Your task to perform on an android device: empty trash in google photos Image 0: 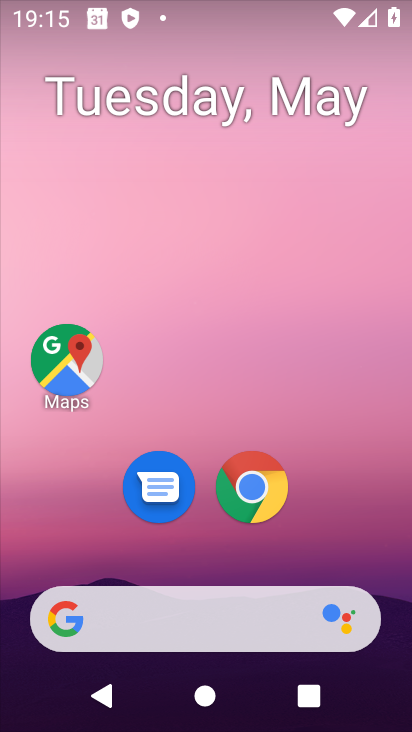
Step 0: drag from (334, 534) to (264, 4)
Your task to perform on an android device: empty trash in google photos Image 1: 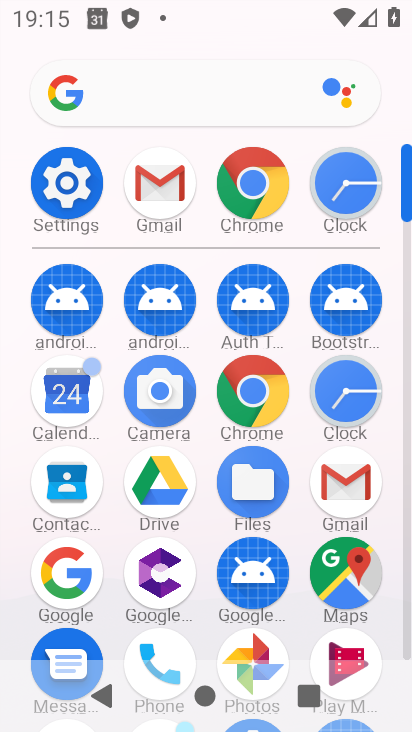
Step 1: click (255, 654)
Your task to perform on an android device: empty trash in google photos Image 2: 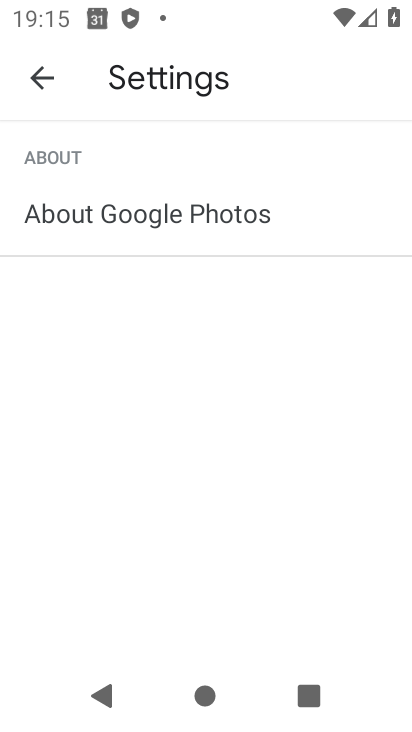
Step 2: click (36, 77)
Your task to perform on an android device: empty trash in google photos Image 3: 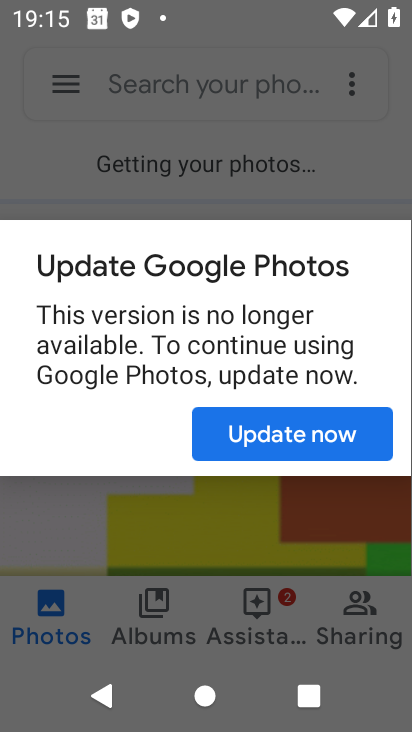
Step 3: click (264, 435)
Your task to perform on an android device: empty trash in google photos Image 4: 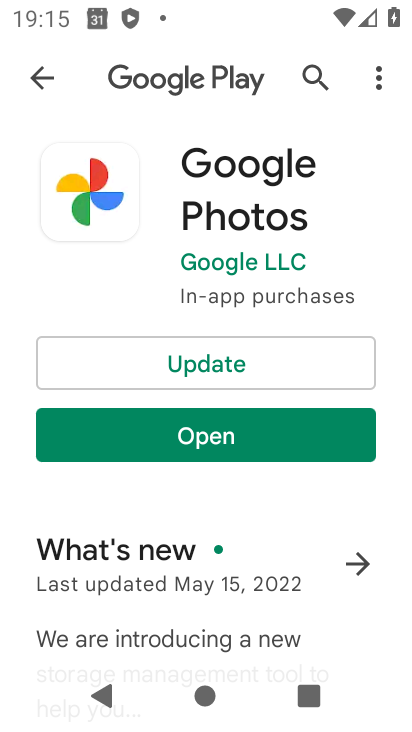
Step 4: click (201, 357)
Your task to perform on an android device: empty trash in google photos Image 5: 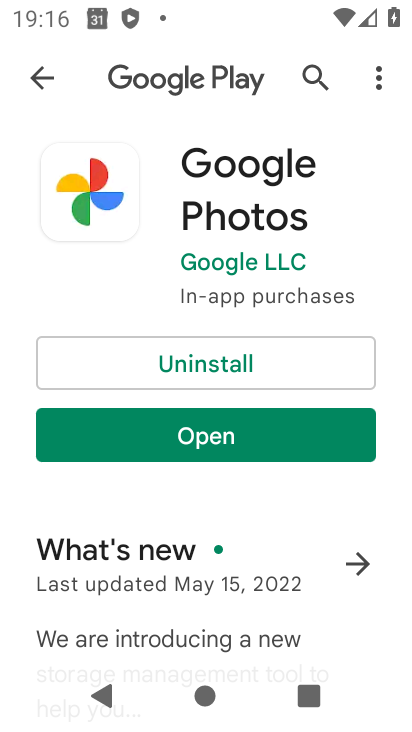
Step 5: click (202, 442)
Your task to perform on an android device: empty trash in google photos Image 6: 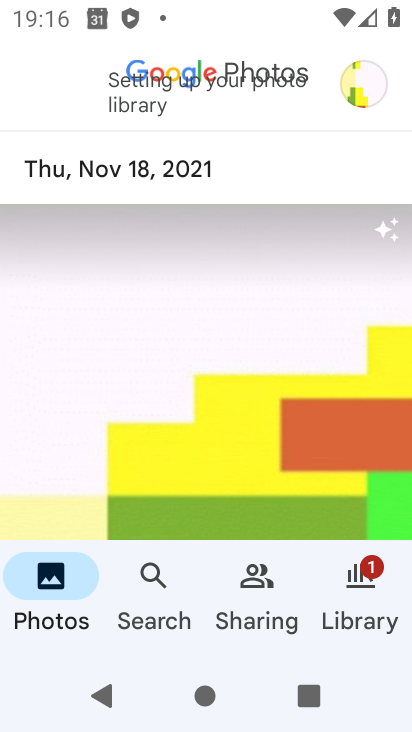
Step 6: click (352, 565)
Your task to perform on an android device: empty trash in google photos Image 7: 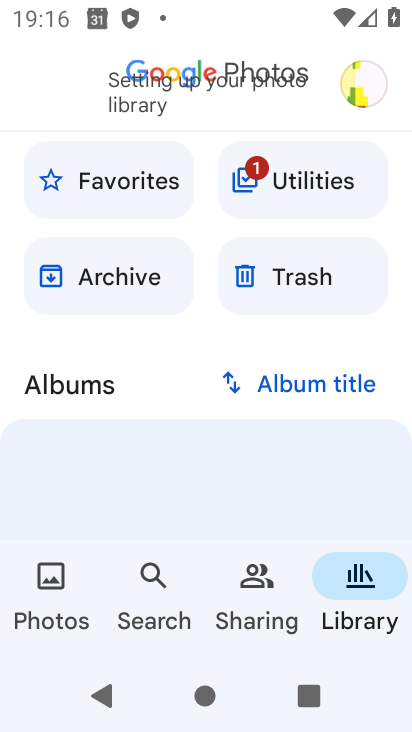
Step 7: click (278, 279)
Your task to perform on an android device: empty trash in google photos Image 8: 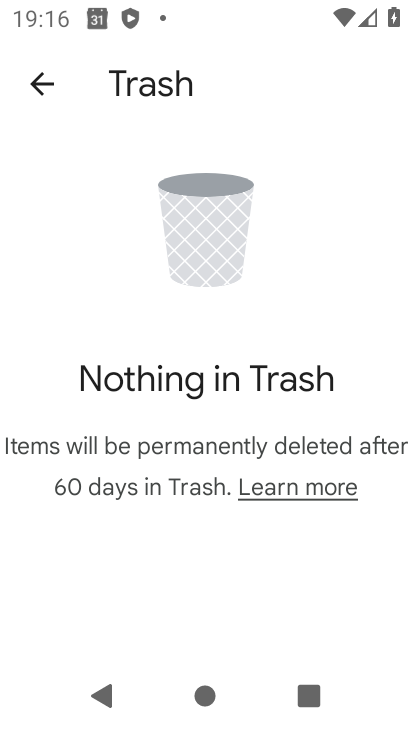
Step 8: task complete